Your task to perform on an android device: Go to notification settings Image 0: 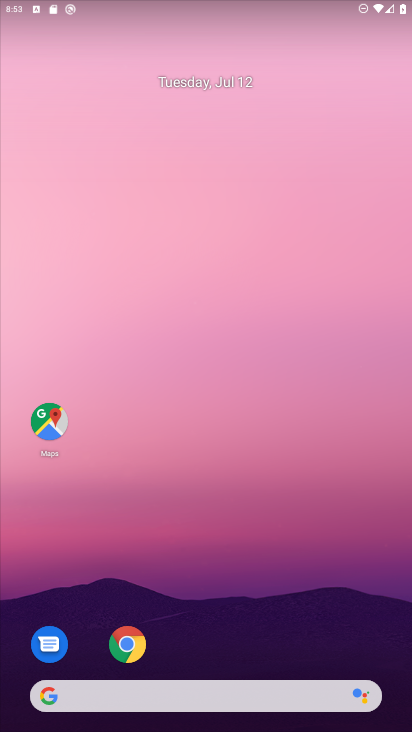
Step 0: drag from (385, 660) to (334, 134)
Your task to perform on an android device: Go to notification settings Image 1: 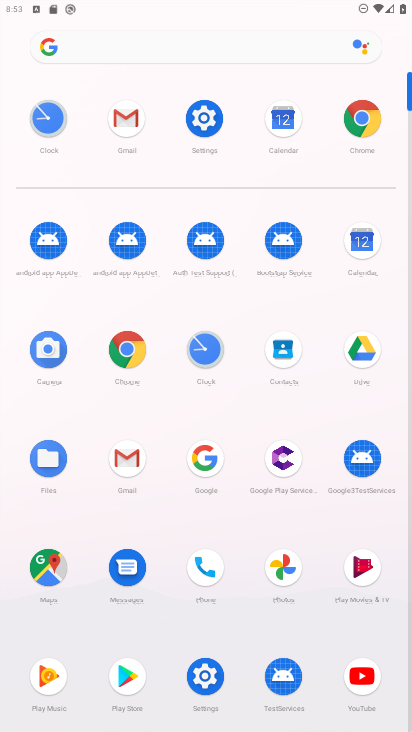
Step 1: click (204, 678)
Your task to perform on an android device: Go to notification settings Image 2: 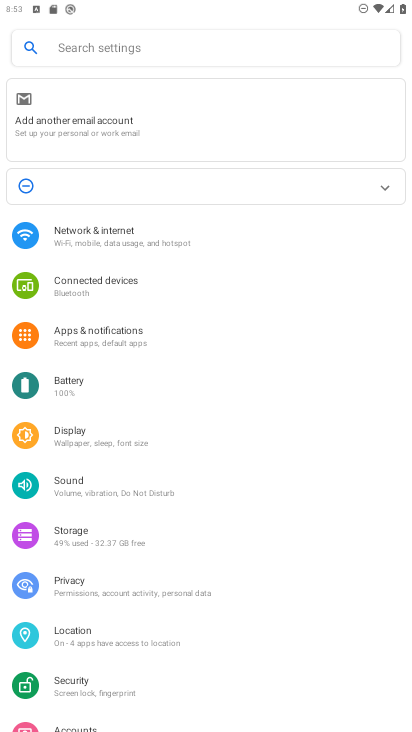
Step 2: click (94, 324)
Your task to perform on an android device: Go to notification settings Image 3: 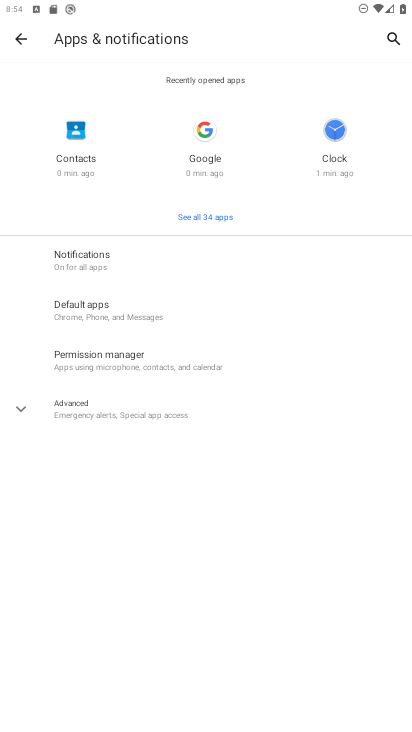
Step 3: click (71, 258)
Your task to perform on an android device: Go to notification settings Image 4: 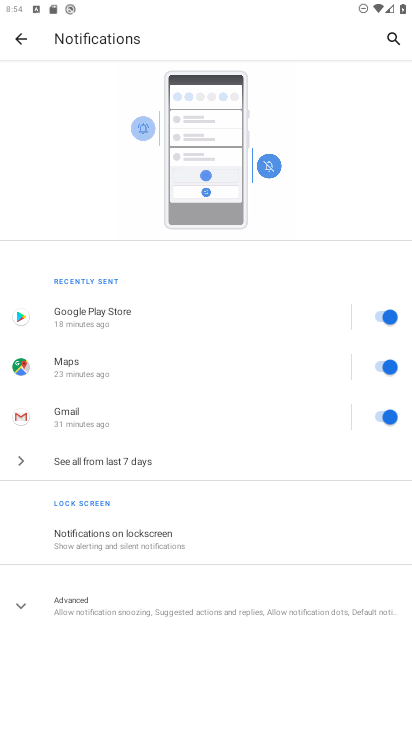
Step 4: click (13, 606)
Your task to perform on an android device: Go to notification settings Image 5: 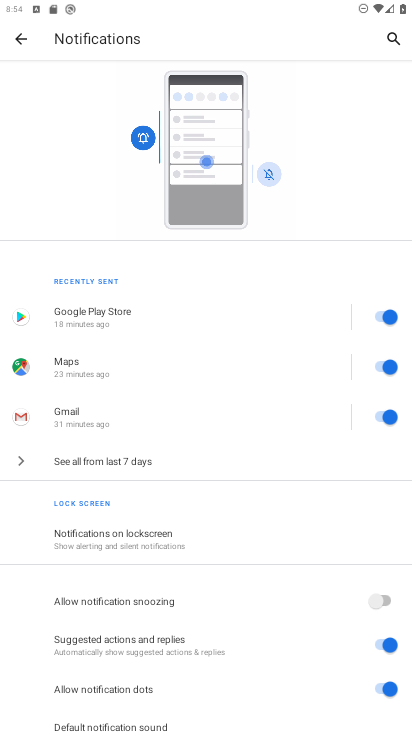
Step 5: task complete